Your task to perform on an android device: find snoozed emails in the gmail app Image 0: 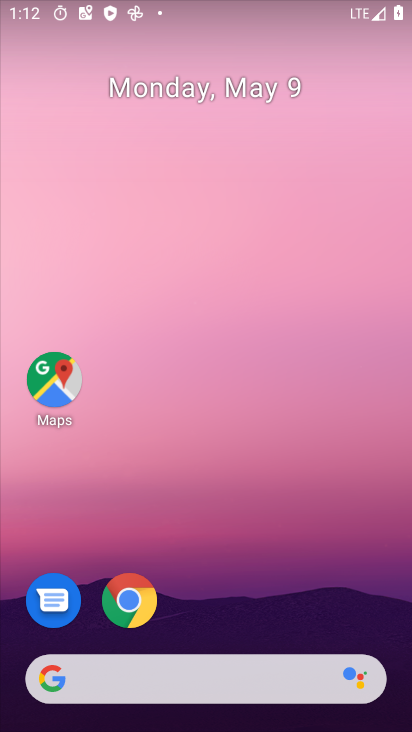
Step 0: drag from (255, 649) to (230, 275)
Your task to perform on an android device: find snoozed emails in the gmail app Image 1: 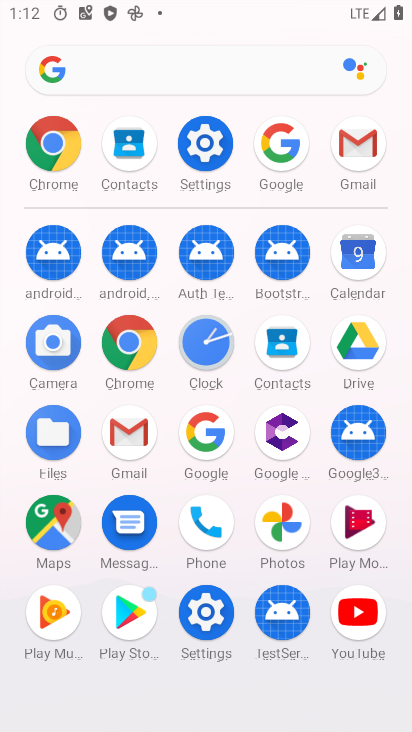
Step 1: click (130, 445)
Your task to perform on an android device: find snoozed emails in the gmail app Image 2: 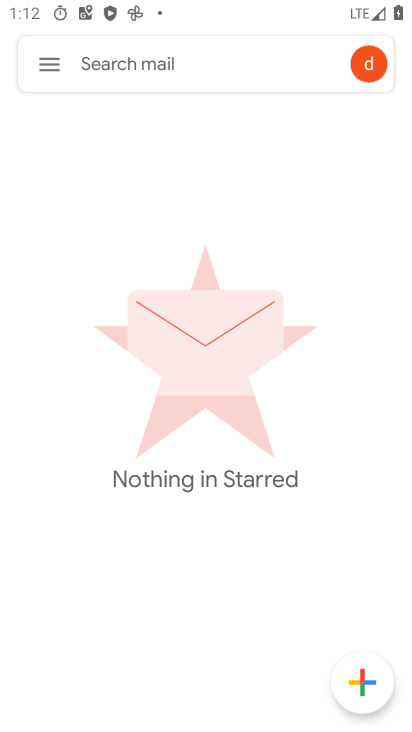
Step 2: click (56, 65)
Your task to perform on an android device: find snoozed emails in the gmail app Image 3: 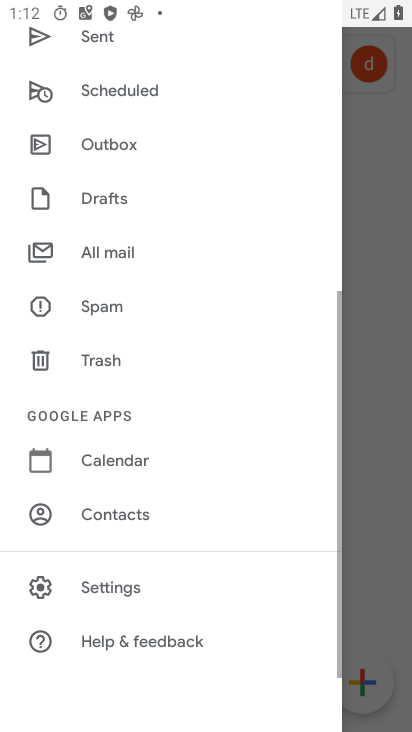
Step 3: drag from (163, 163) to (219, 530)
Your task to perform on an android device: find snoozed emails in the gmail app Image 4: 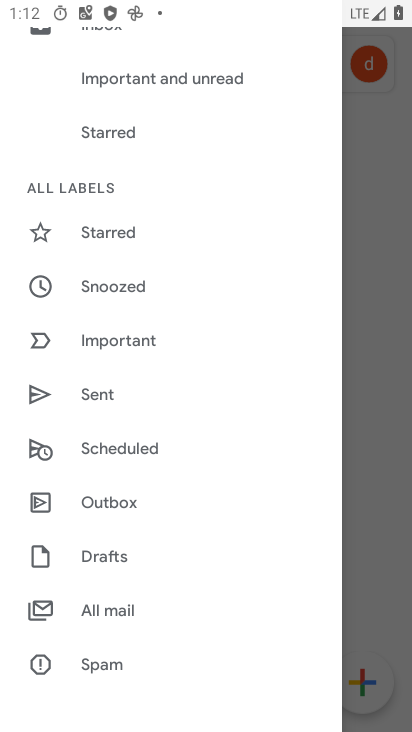
Step 4: click (135, 289)
Your task to perform on an android device: find snoozed emails in the gmail app Image 5: 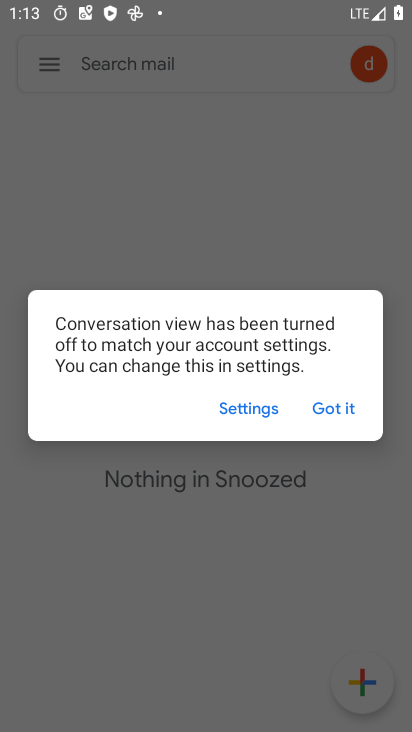
Step 5: click (340, 402)
Your task to perform on an android device: find snoozed emails in the gmail app Image 6: 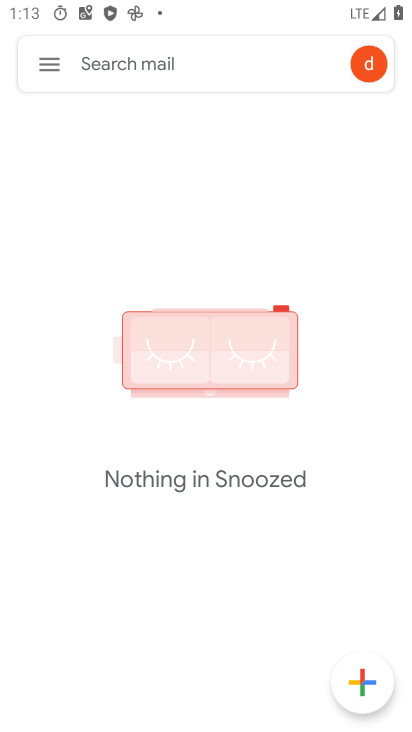
Step 6: task complete